Your task to perform on an android device: set an alarm Image 0: 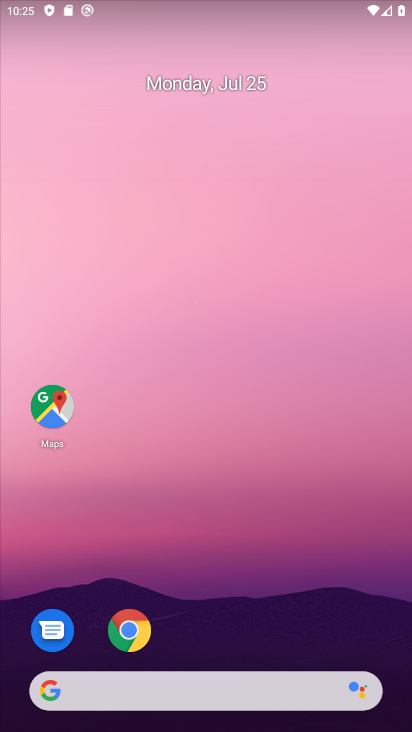
Step 0: drag from (246, 661) to (177, 146)
Your task to perform on an android device: set an alarm Image 1: 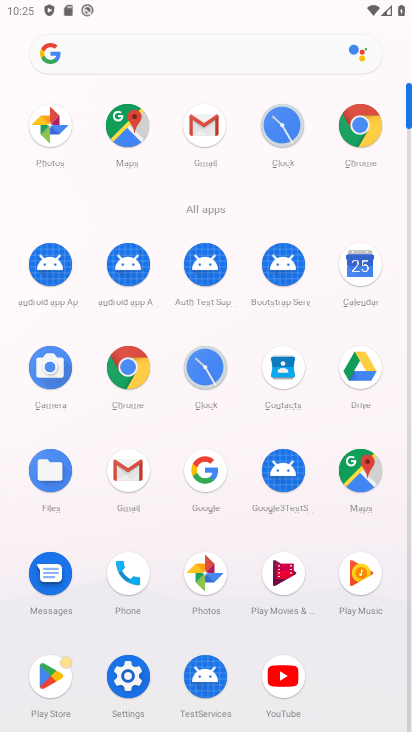
Step 1: click (217, 372)
Your task to perform on an android device: set an alarm Image 2: 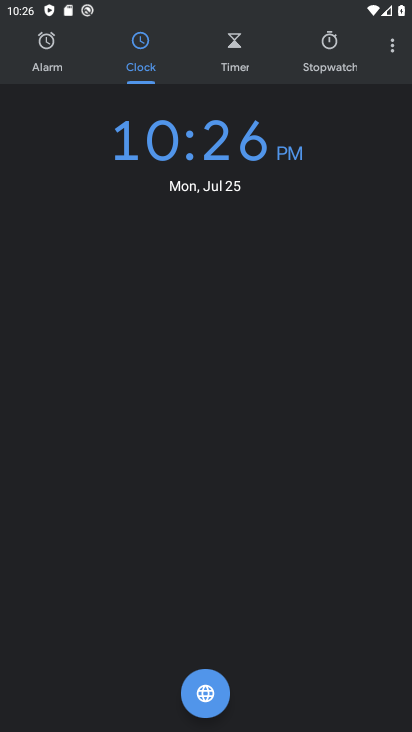
Step 2: click (50, 45)
Your task to perform on an android device: set an alarm Image 3: 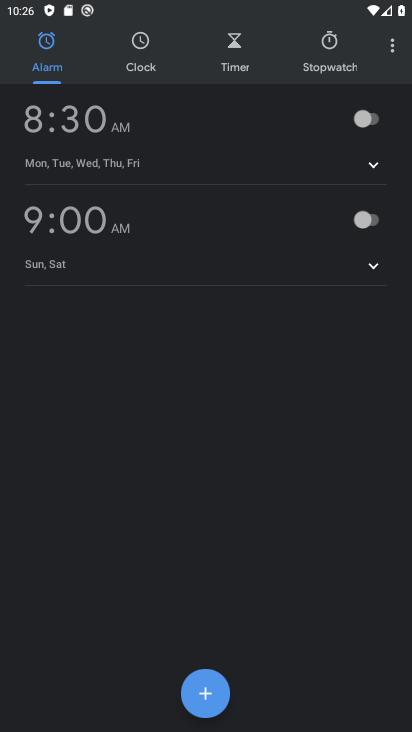
Step 3: click (204, 715)
Your task to perform on an android device: set an alarm Image 4: 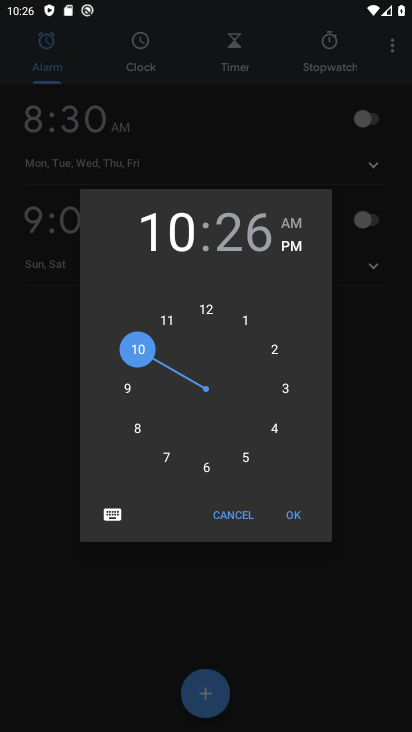
Step 4: click (297, 518)
Your task to perform on an android device: set an alarm Image 5: 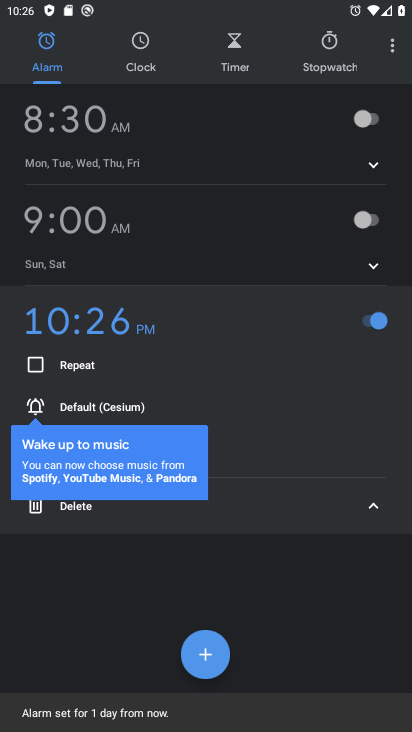
Step 5: task complete